Your task to perform on an android device: add a contact in the contacts app Image 0: 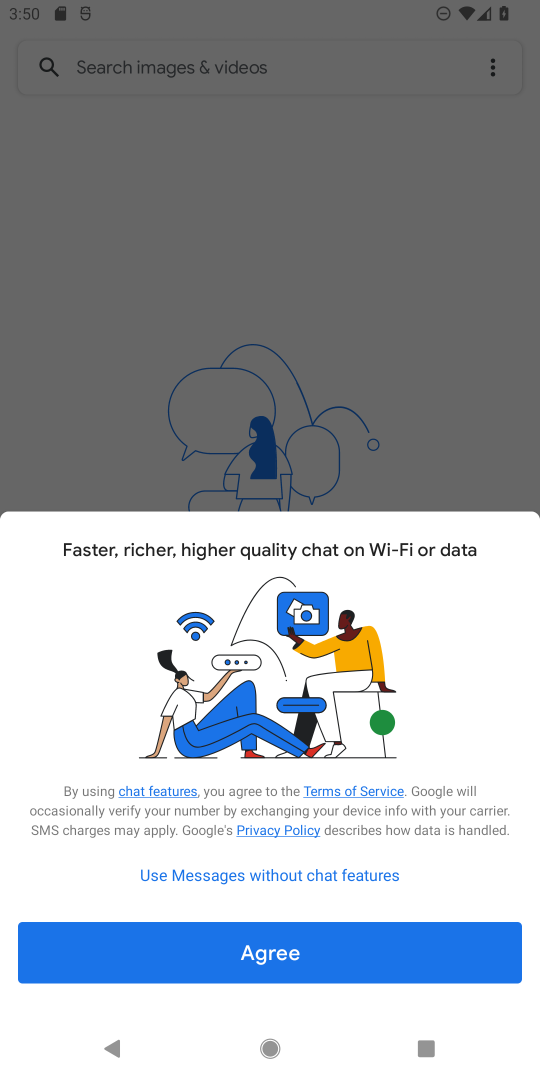
Step 0: click (399, 902)
Your task to perform on an android device: add a contact in the contacts app Image 1: 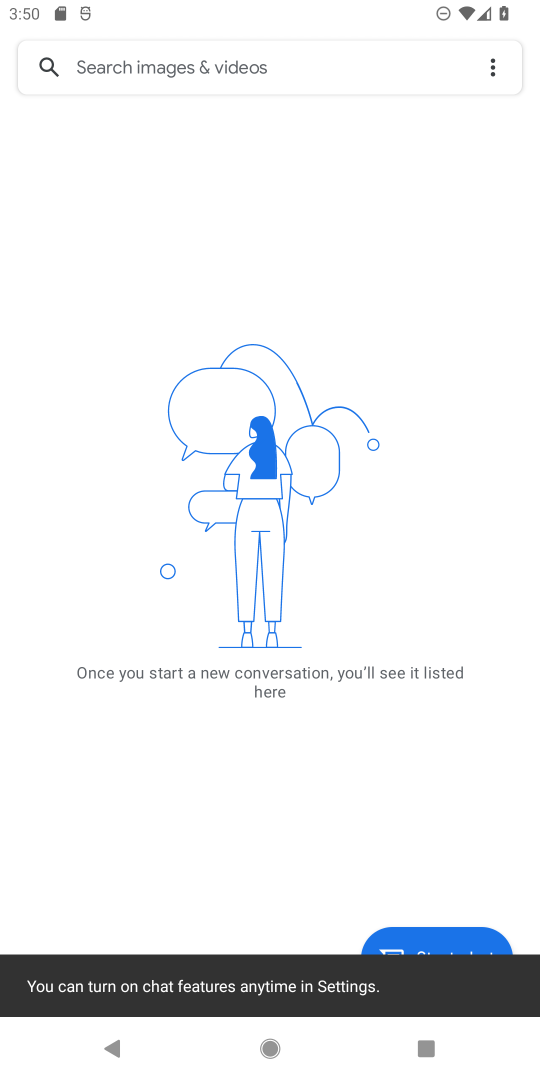
Step 1: press home button
Your task to perform on an android device: add a contact in the contacts app Image 2: 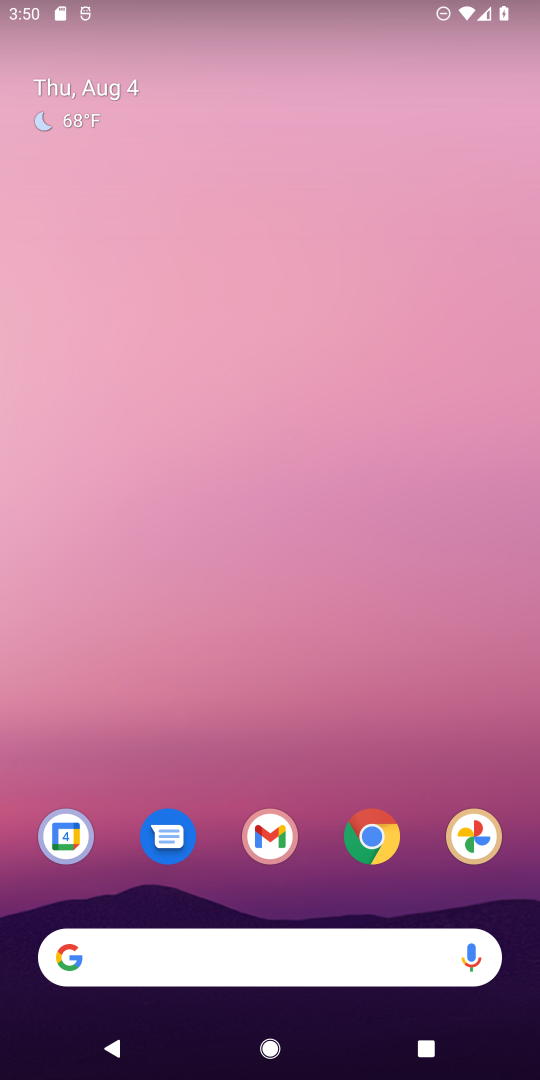
Step 2: drag from (184, 1018) to (106, 2)
Your task to perform on an android device: add a contact in the contacts app Image 3: 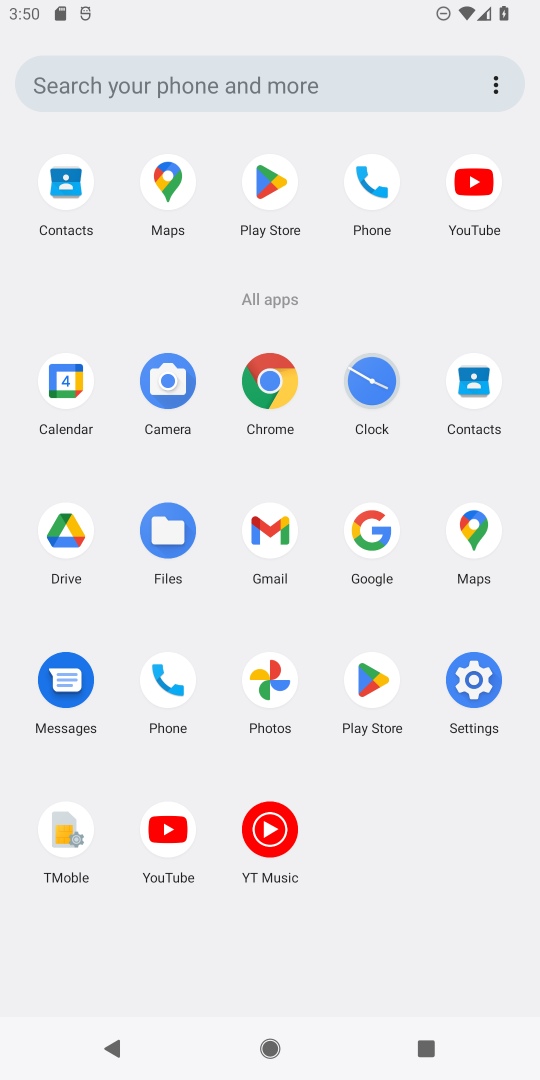
Step 3: click (483, 386)
Your task to perform on an android device: add a contact in the contacts app Image 4: 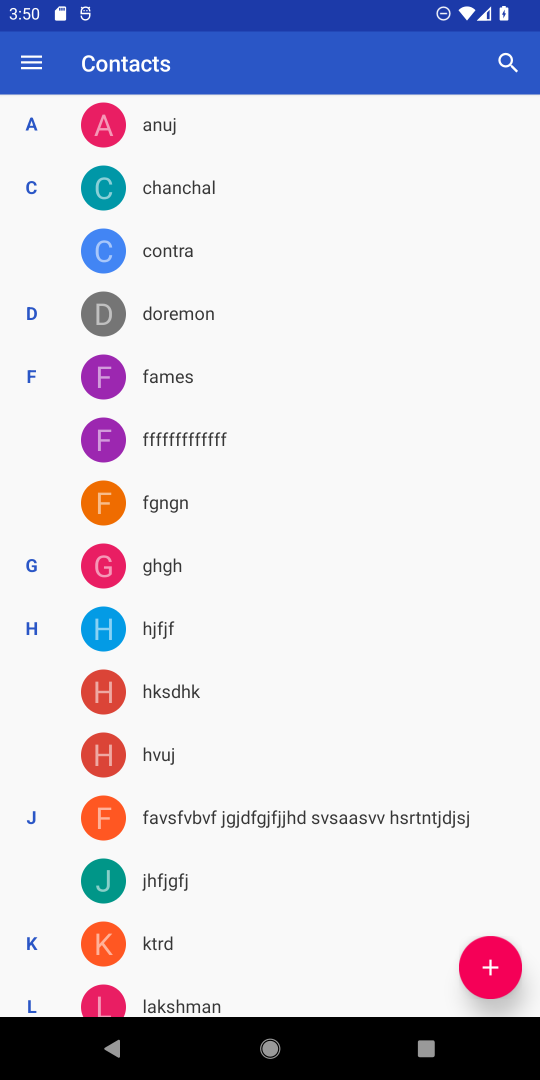
Step 4: click (506, 975)
Your task to perform on an android device: add a contact in the contacts app Image 5: 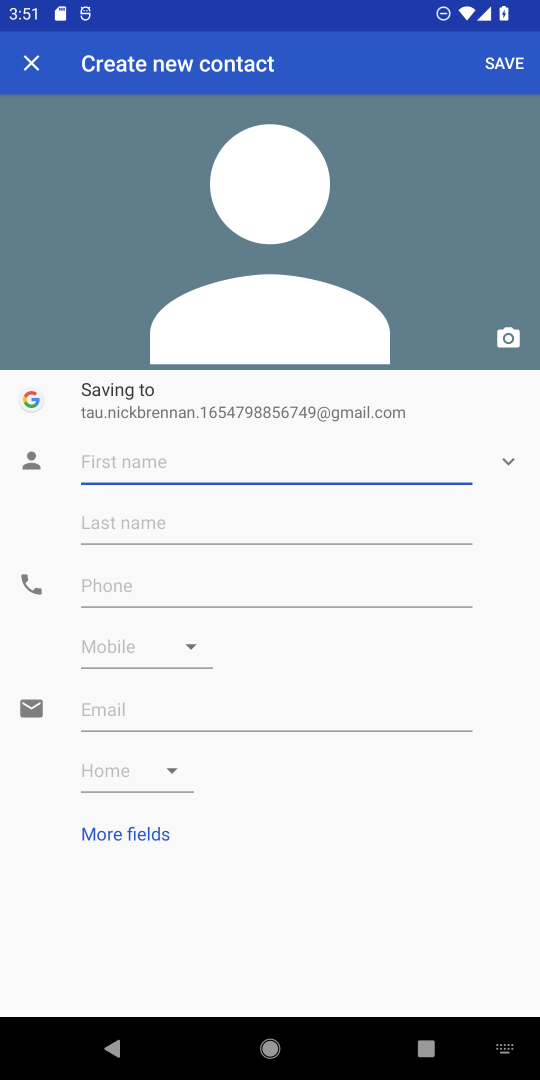
Step 5: type "gfjhgv"
Your task to perform on an android device: add a contact in the contacts app Image 6: 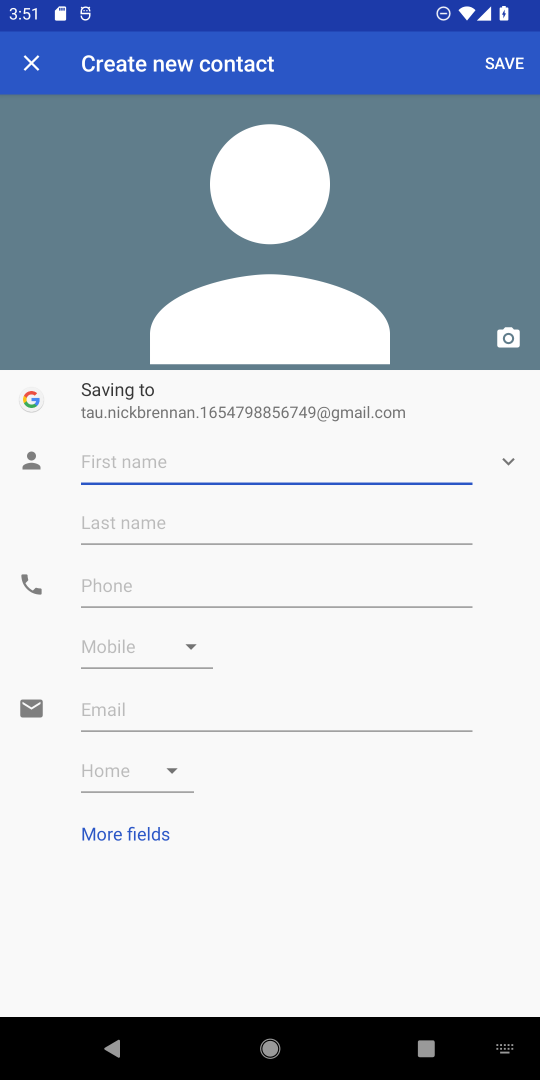
Step 6: click (329, 581)
Your task to perform on an android device: add a contact in the contacts app Image 7: 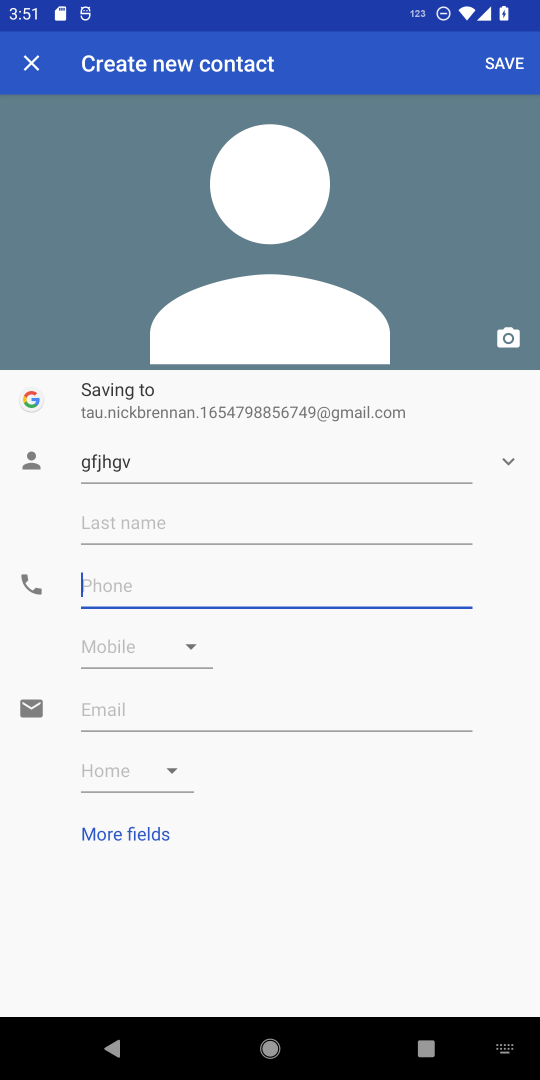
Step 7: click (229, 584)
Your task to perform on an android device: add a contact in the contacts app Image 8: 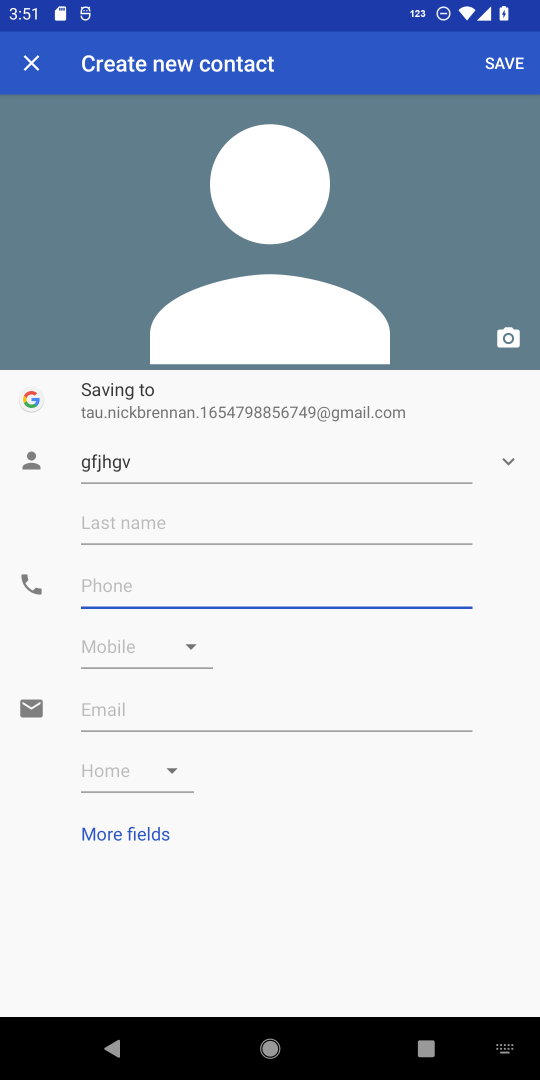
Step 8: click (173, 597)
Your task to perform on an android device: add a contact in the contacts app Image 9: 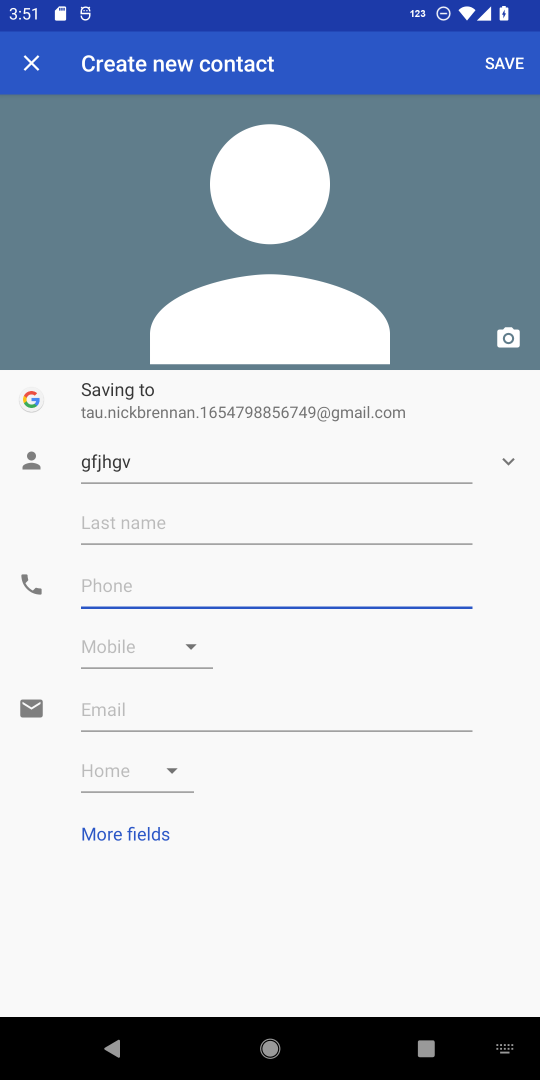
Step 9: type "7887"
Your task to perform on an android device: add a contact in the contacts app Image 10: 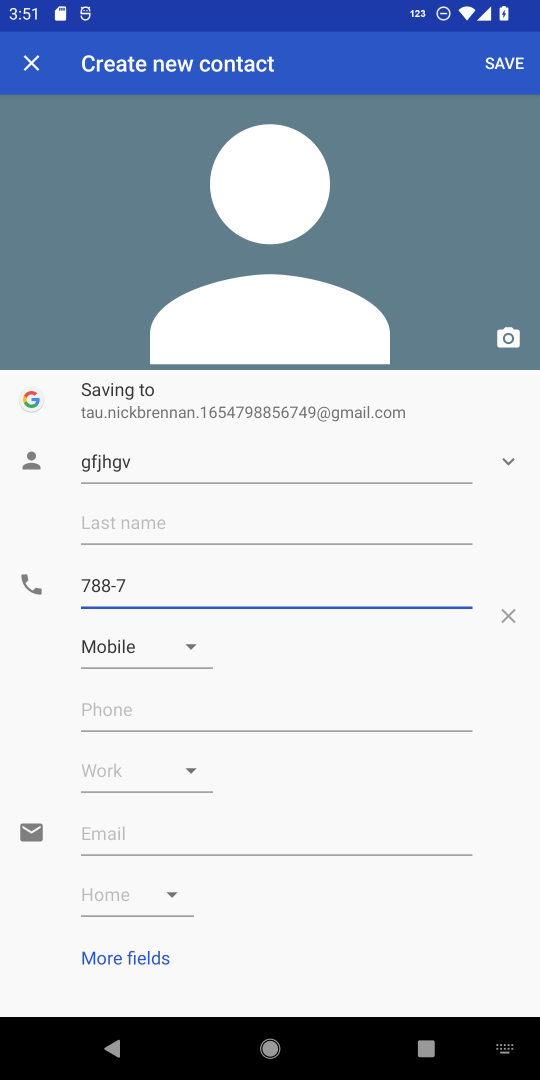
Step 10: click (497, 64)
Your task to perform on an android device: add a contact in the contacts app Image 11: 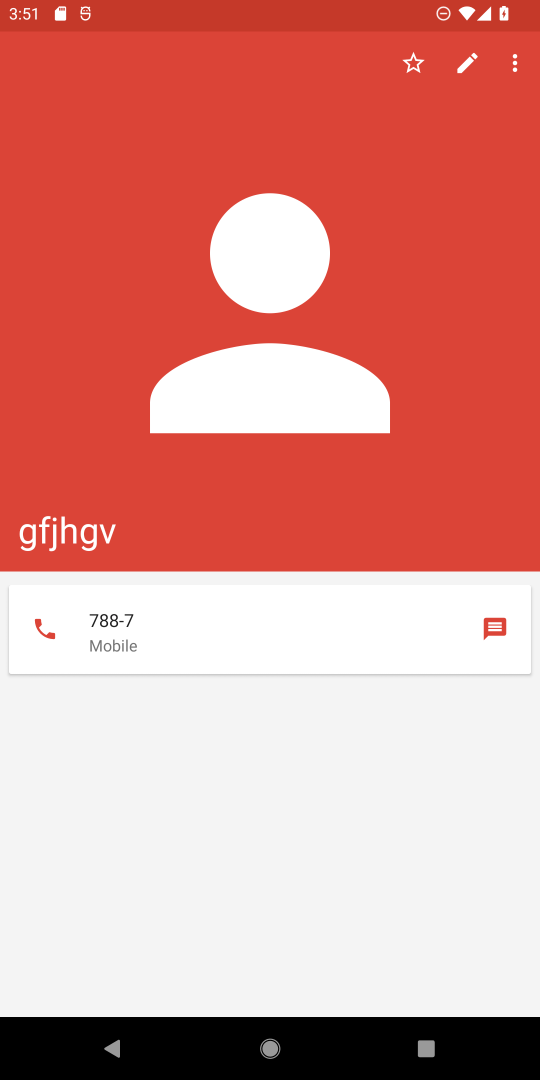
Step 11: task complete